Your task to perform on an android device: allow cookies in the chrome app Image 0: 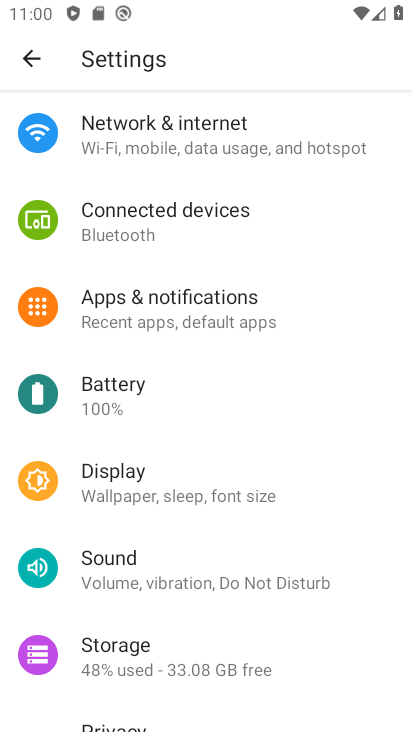
Step 0: press home button
Your task to perform on an android device: allow cookies in the chrome app Image 1: 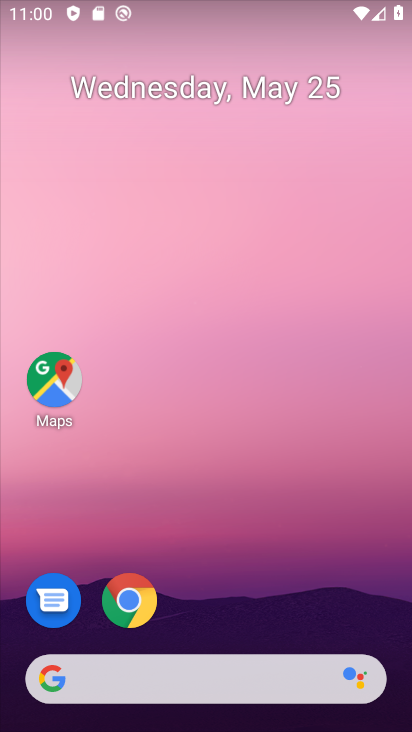
Step 1: click (113, 600)
Your task to perform on an android device: allow cookies in the chrome app Image 2: 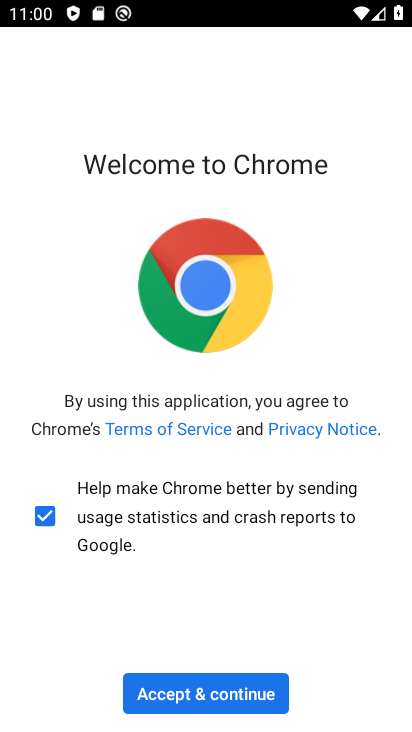
Step 2: click (232, 687)
Your task to perform on an android device: allow cookies in the chrome app Image 3: 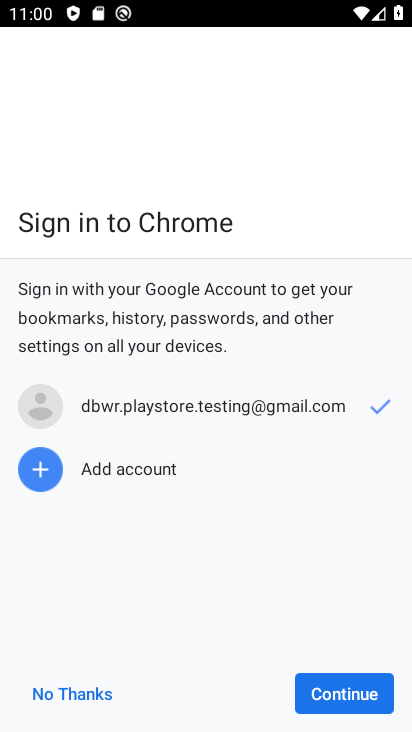
Step 3: click (337, 696)
Your task to perform on an android device: allow cookies in the chrome app Image 4: 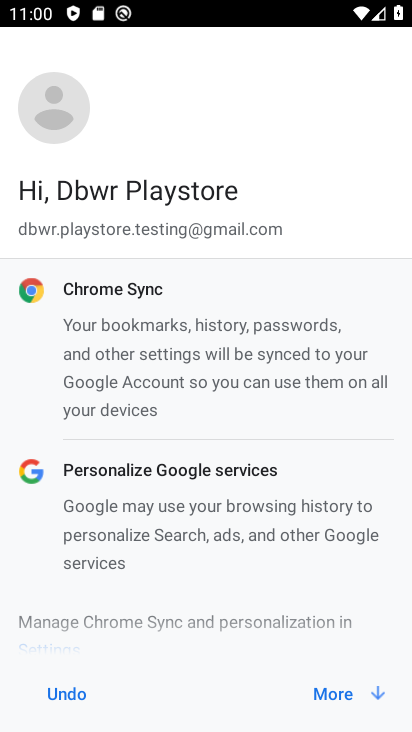
Step 4: click (337, 696)
Your task to perform on an android device: allow cookies in the chrome app Image 5: 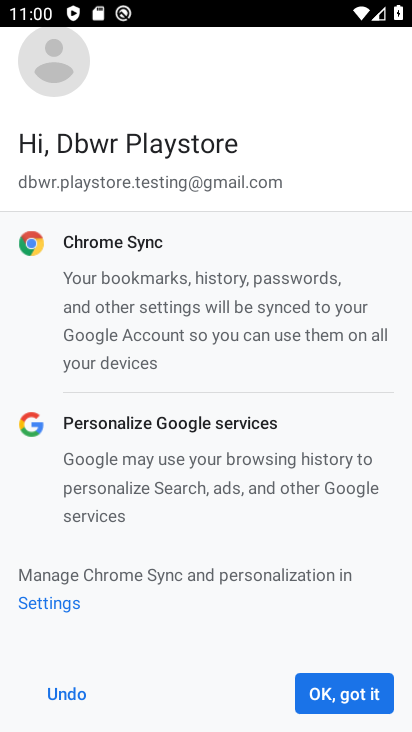
Step 5: click (337, 696)
Your task to perform on an android device: allow cookies in the chrome app Image 6: 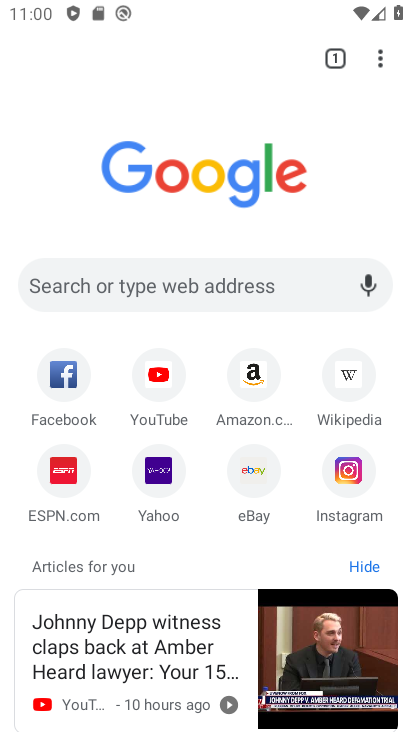
Step 6: drag from (383, 53) to (208, 487)
Your task to perform on an android device: allow cookies in the chrome app Image 7: 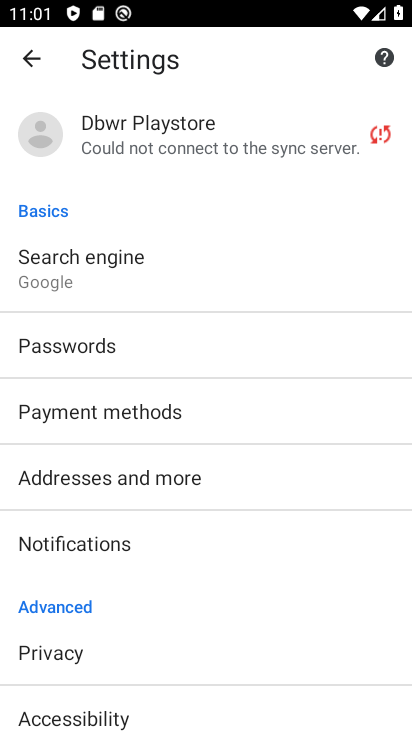
Step 7: drag from (149, 610) to (174, 187)
Your task to perform on an android device: allow cookies in the chrome app Image 8: 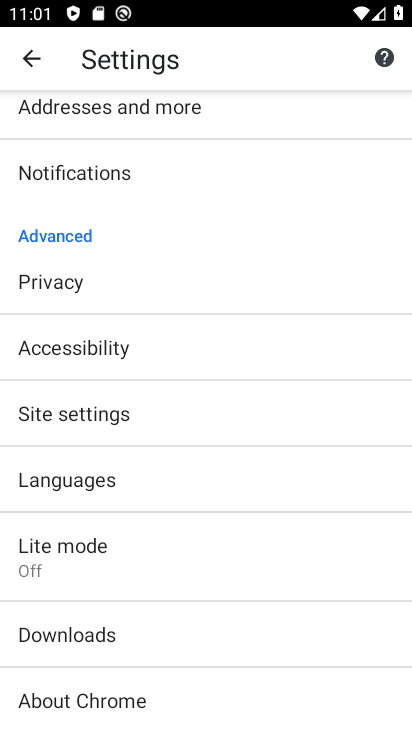
Step 8: click (133, 424)
Your task to perform on an android device: allow cookies in the chrome app Image 9: 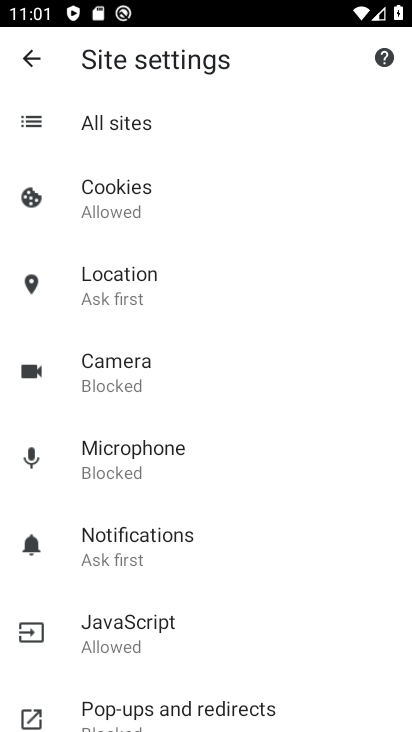
Step 9: click (151, 202)
Your task to perform on an android device: allow cookies in the chrome app Image 10: 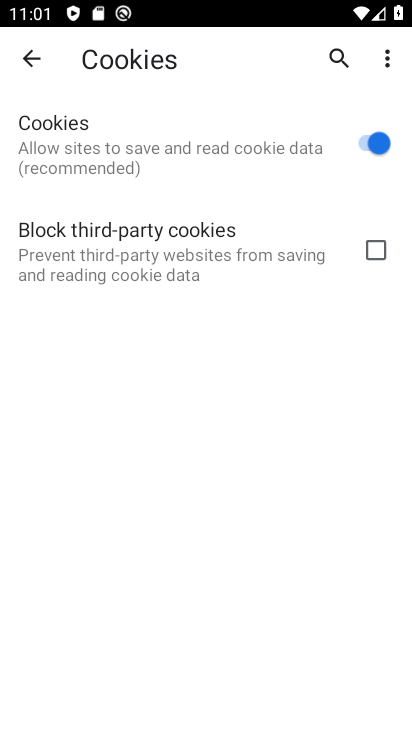
Step 10: task complete